Your task to perform on an android device: Empty the shopping cart on walmart. Add lg ultragear to the cart on walmart Image 0: 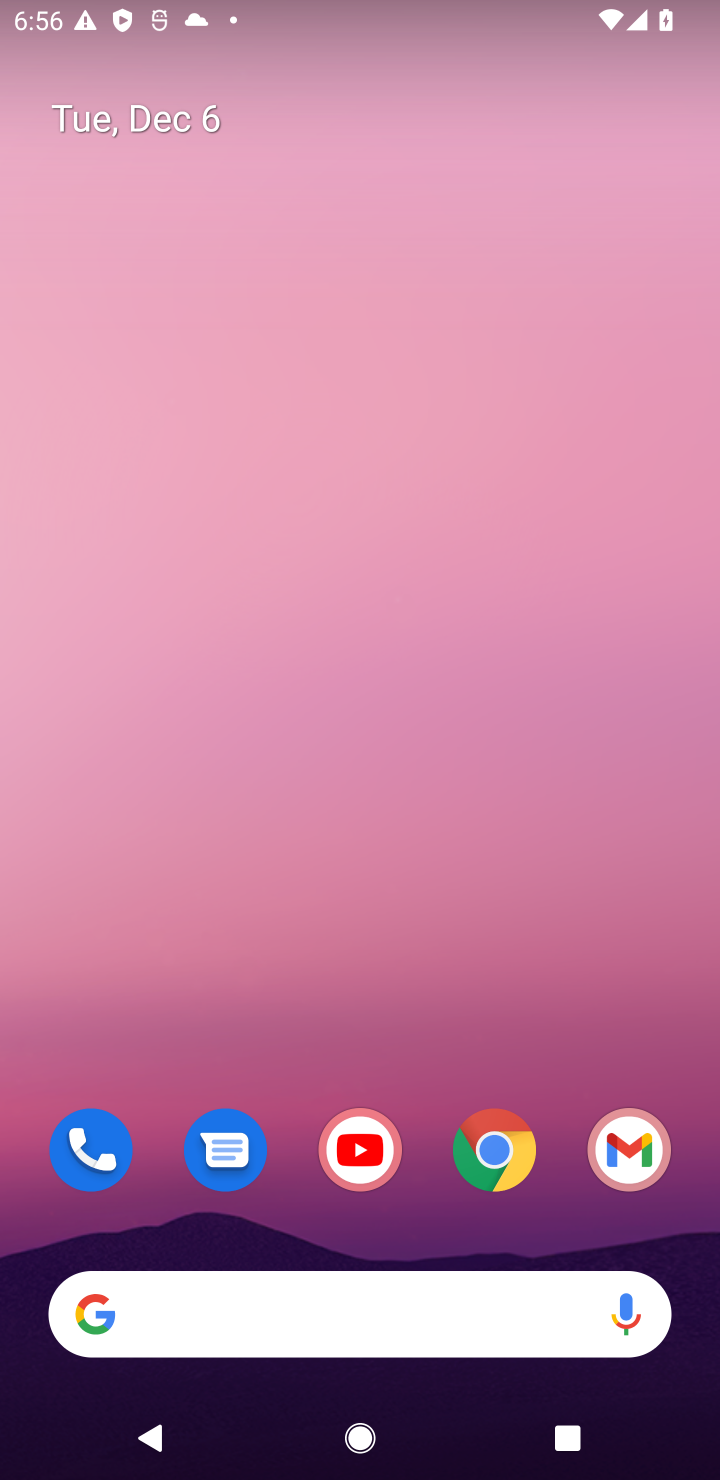
Step 0: click (488, 1155)
Your task to perform on an android device: Empty the shopping cart on walmart. Add lg ultragear to the cart on walmart Image 1: 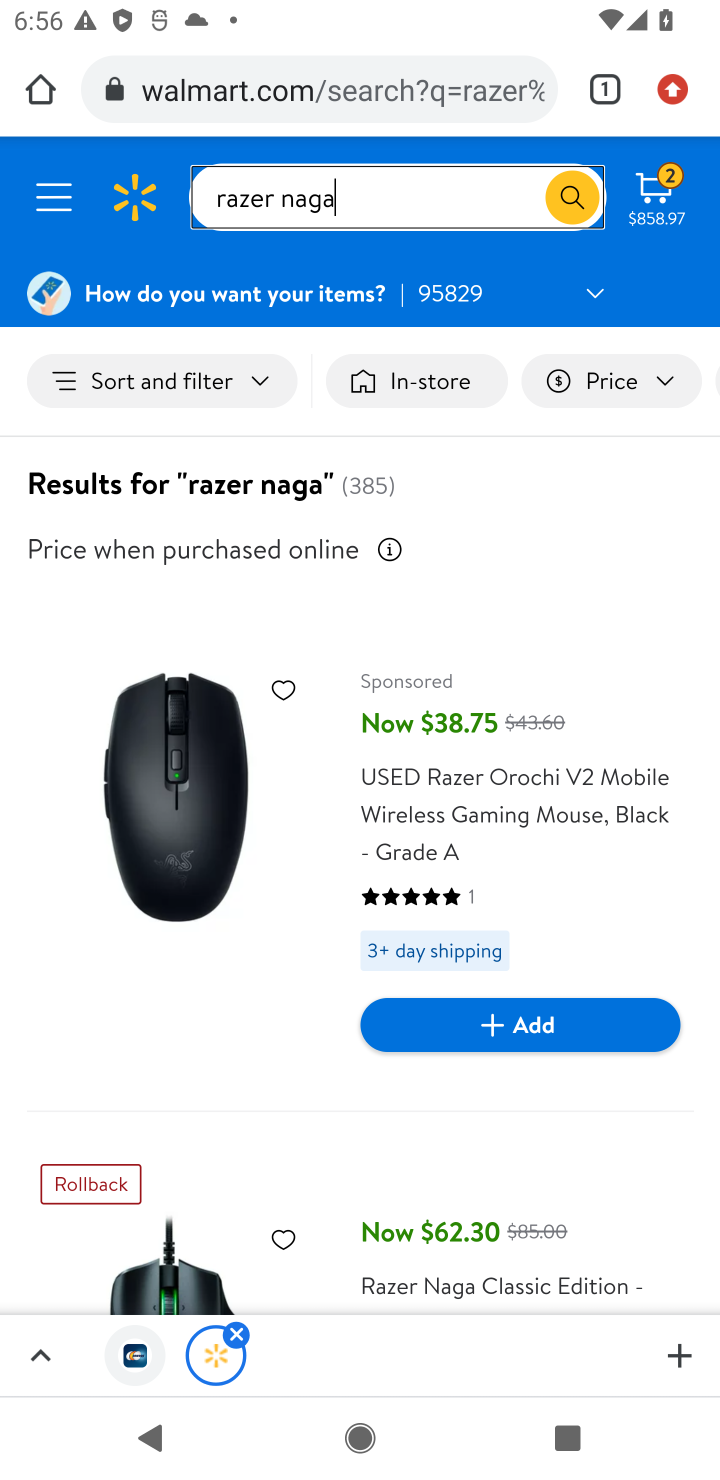
Step 1: click (654, 200)
Your task to perform on an android device: Empty the shopping cart on walmart. Add lg ultragear to the cart on walmart Image 2: 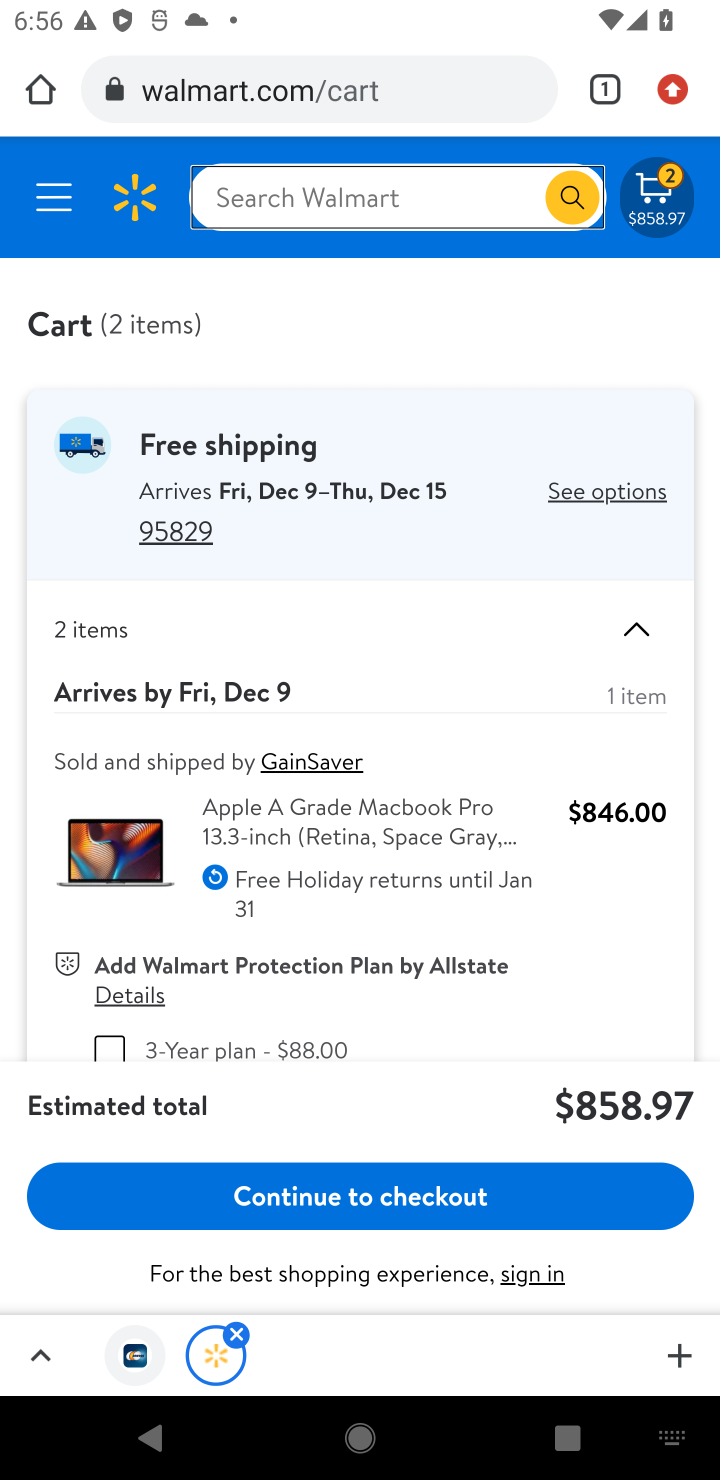
Step 2: drag from (340, 949) to (351, 557)
Your task to perform on an android device: Empty the shopping cart on walmart. Add lg ultragear to the cart on walmart Image 3: 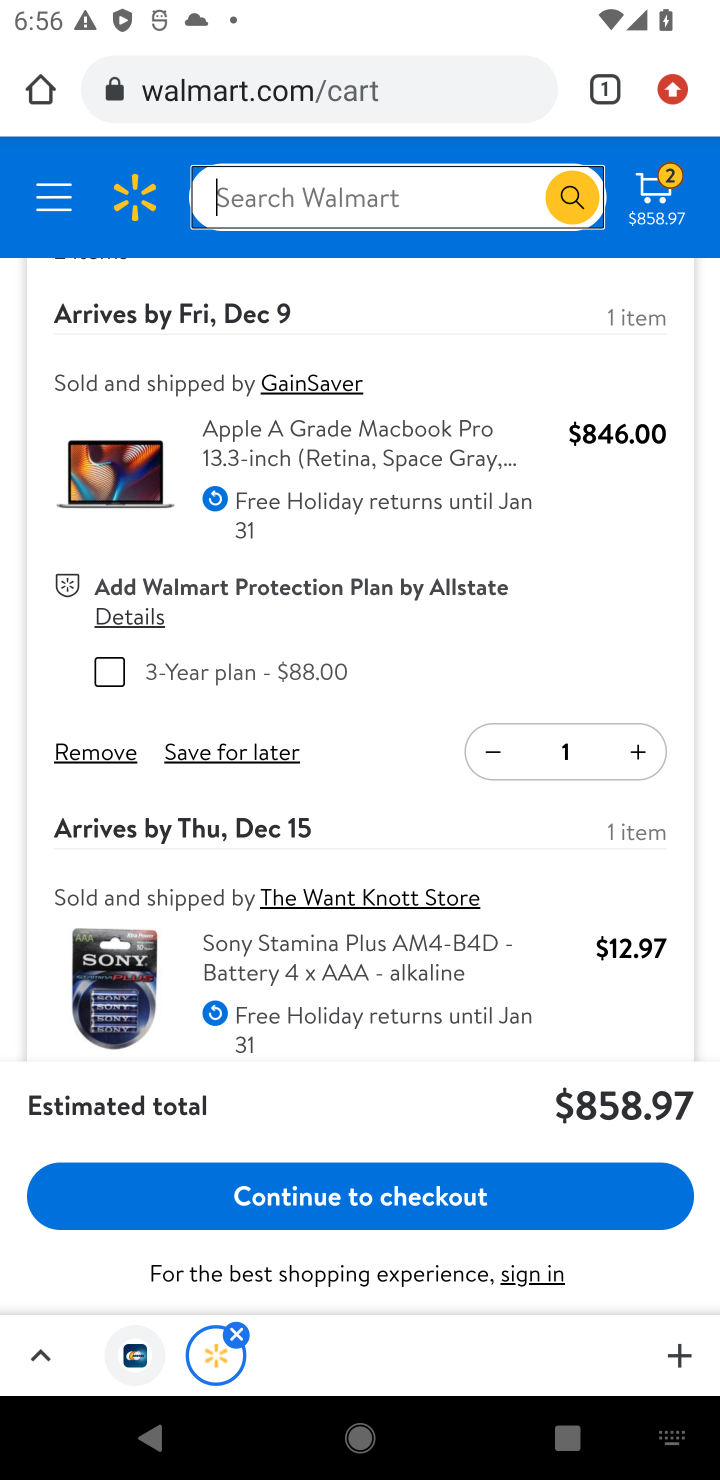
Step 3: click (91, 766)
Your task to perform on an android device: Empty the shopping cart on walmart. Add lg ultragear to the cart on walmart Image 4: 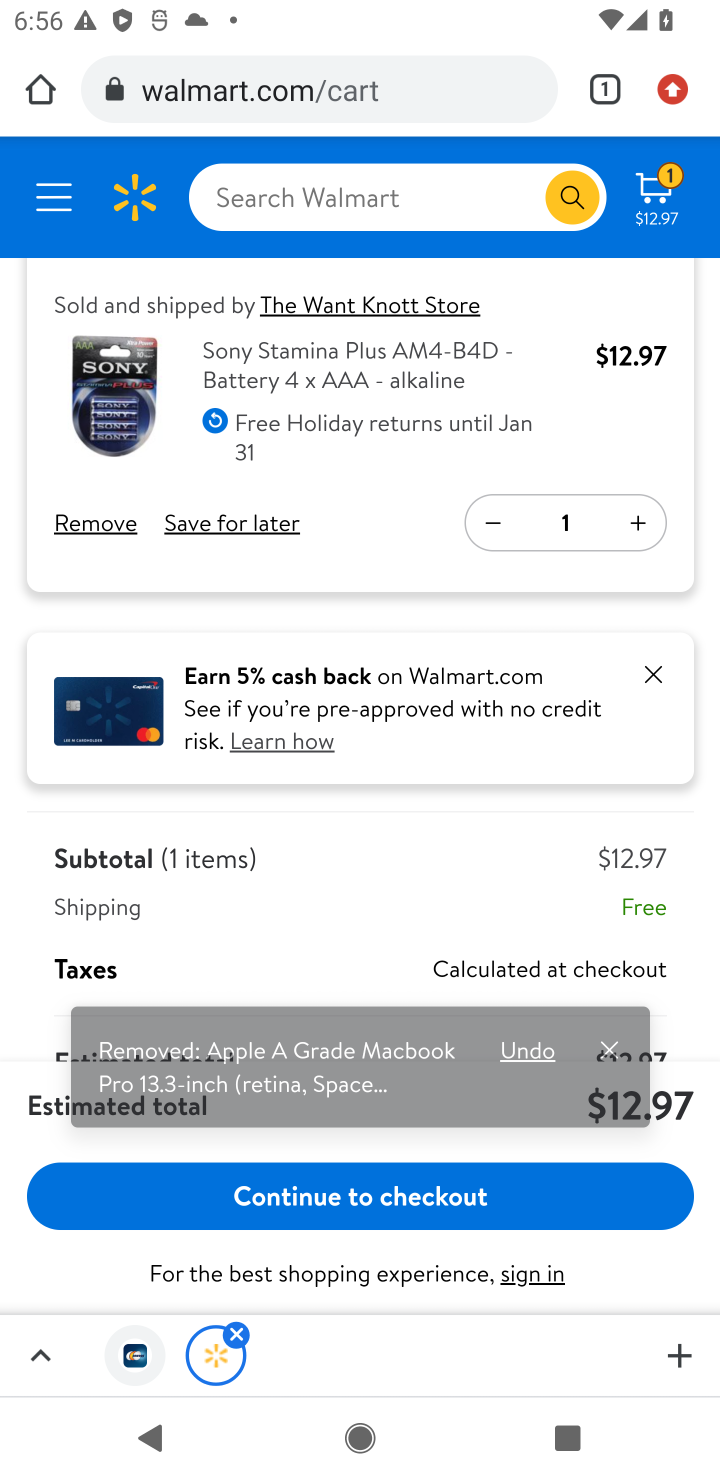
Step 4: click (95, 526)
Your task to perform on an android device: Empty the shopping cart on walmart. Add lg ultragear to the cart on walmart Image 5: 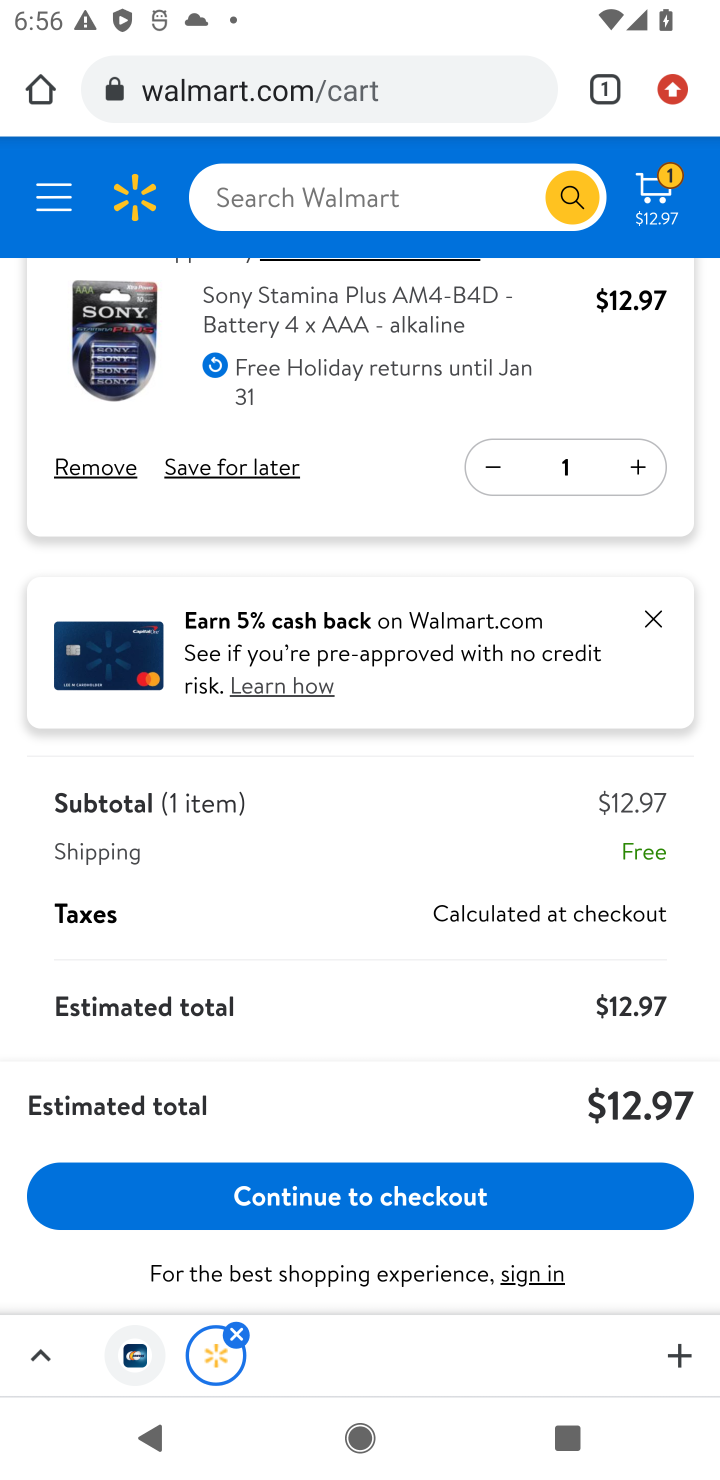
Step 5: click (86, 469)
Your task to perform on an android device: Empty the shopping cart on walmart. Add lg ultragear to the cart on walmart Image 6: 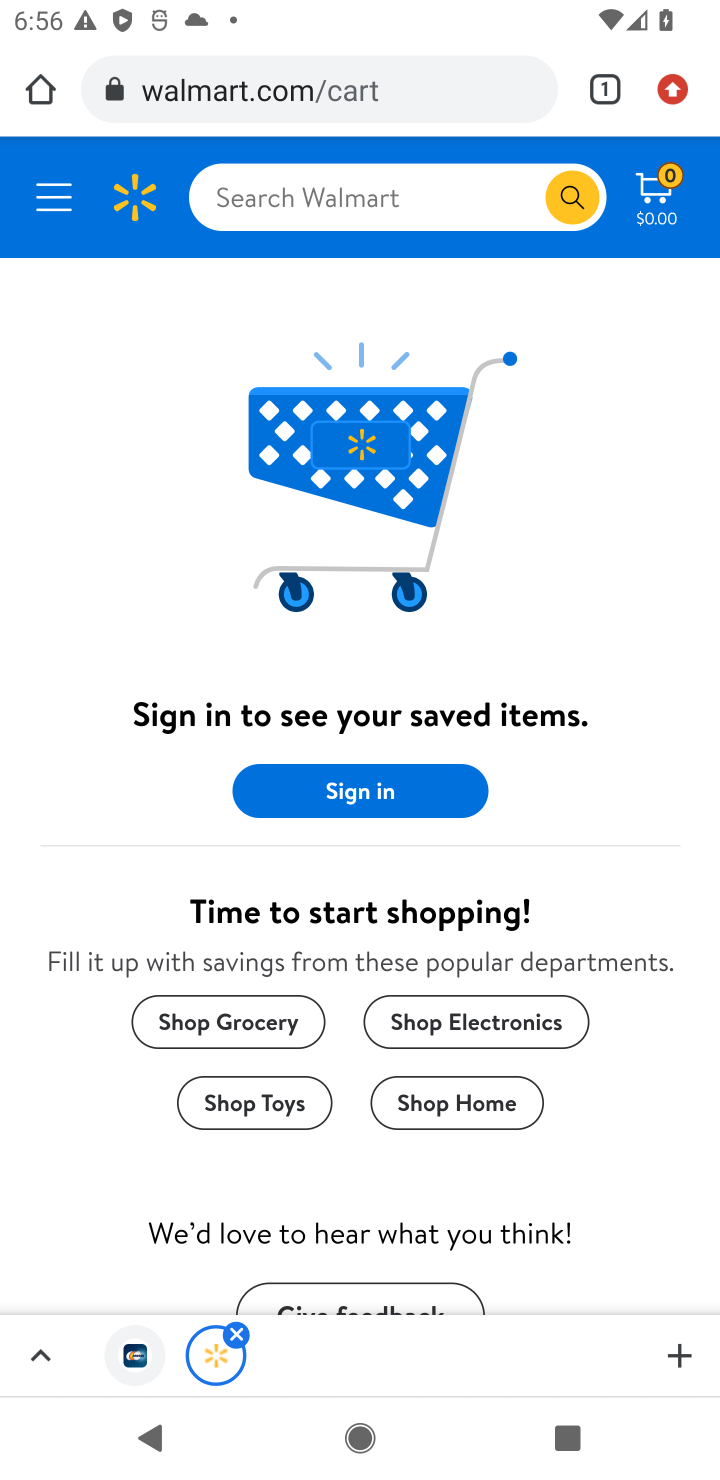
Step 6: click (337, 190)
Your task to perform on an android device: Empty the shopping cart on walmart. Add lg ultragear to the cart on walmart Image 7: 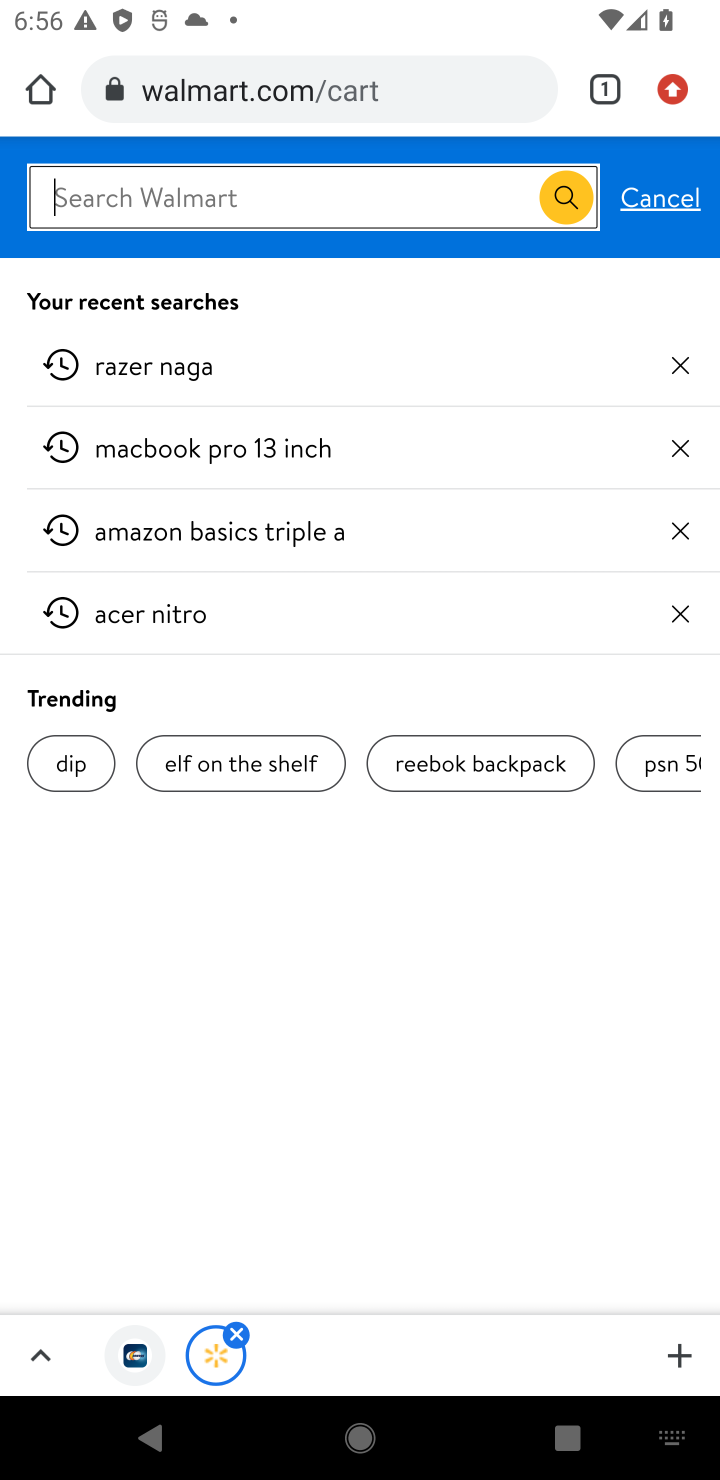
Step 7: type "lg ultragear"
Your task to perform on an android device: Empty the shopping cart on walmart. Add lg ultragear to the cart on walmart Image 8: 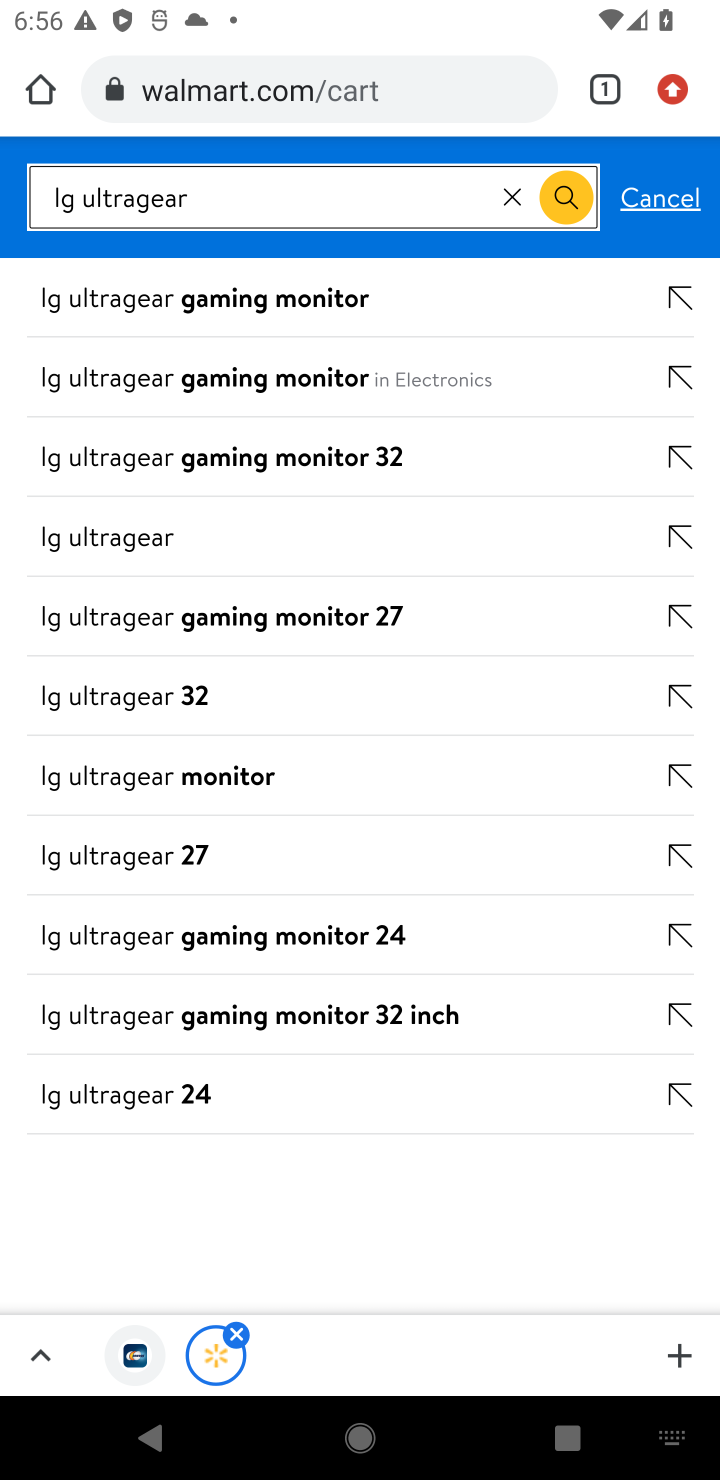
Step 8: click (124, 538)
Your task to perform on an android device: Empty the shopping cart on walmart. Add lg ultragear to the cart on walmart Image 9: 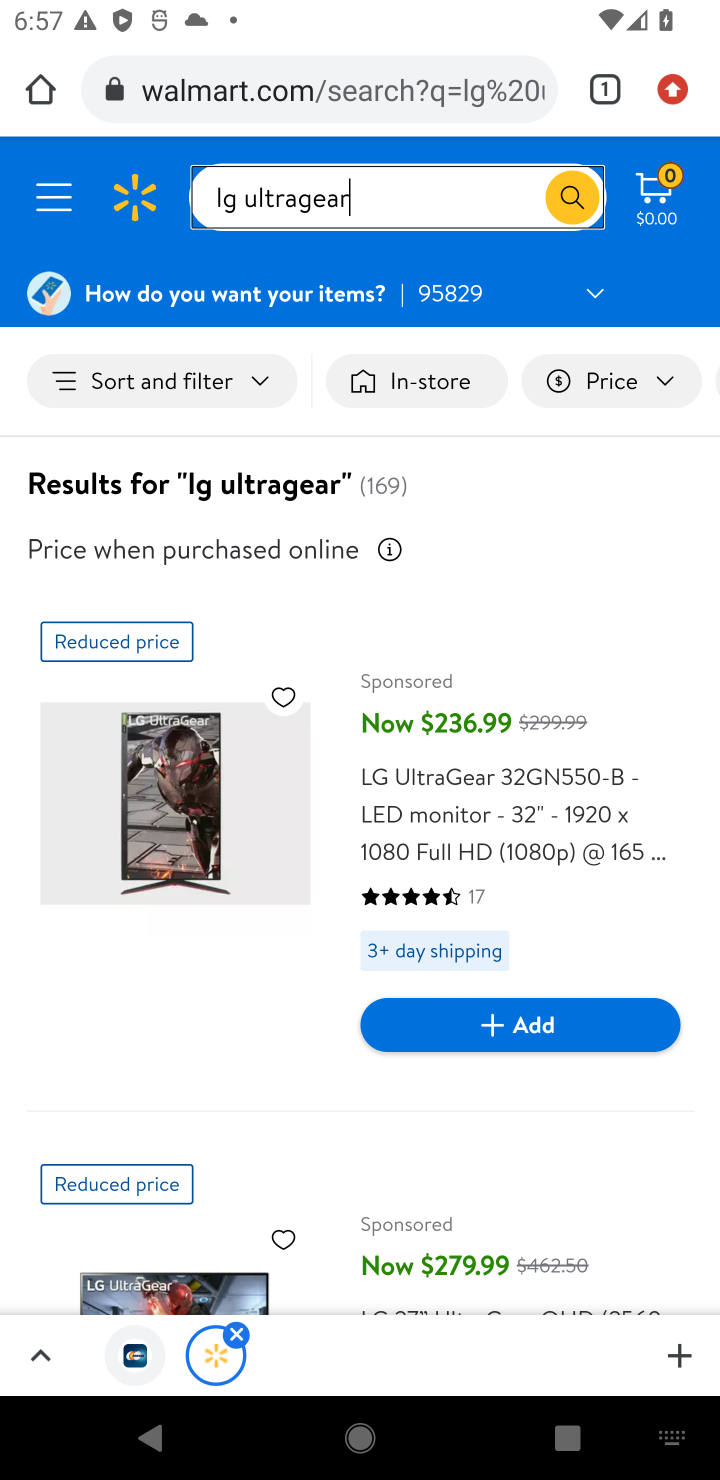
Step 9: click (468, 1018)
Your task to perform on an android device: Empty the shopping cart on walmart. Add lg ultragear to the cart on walmart Image 10: 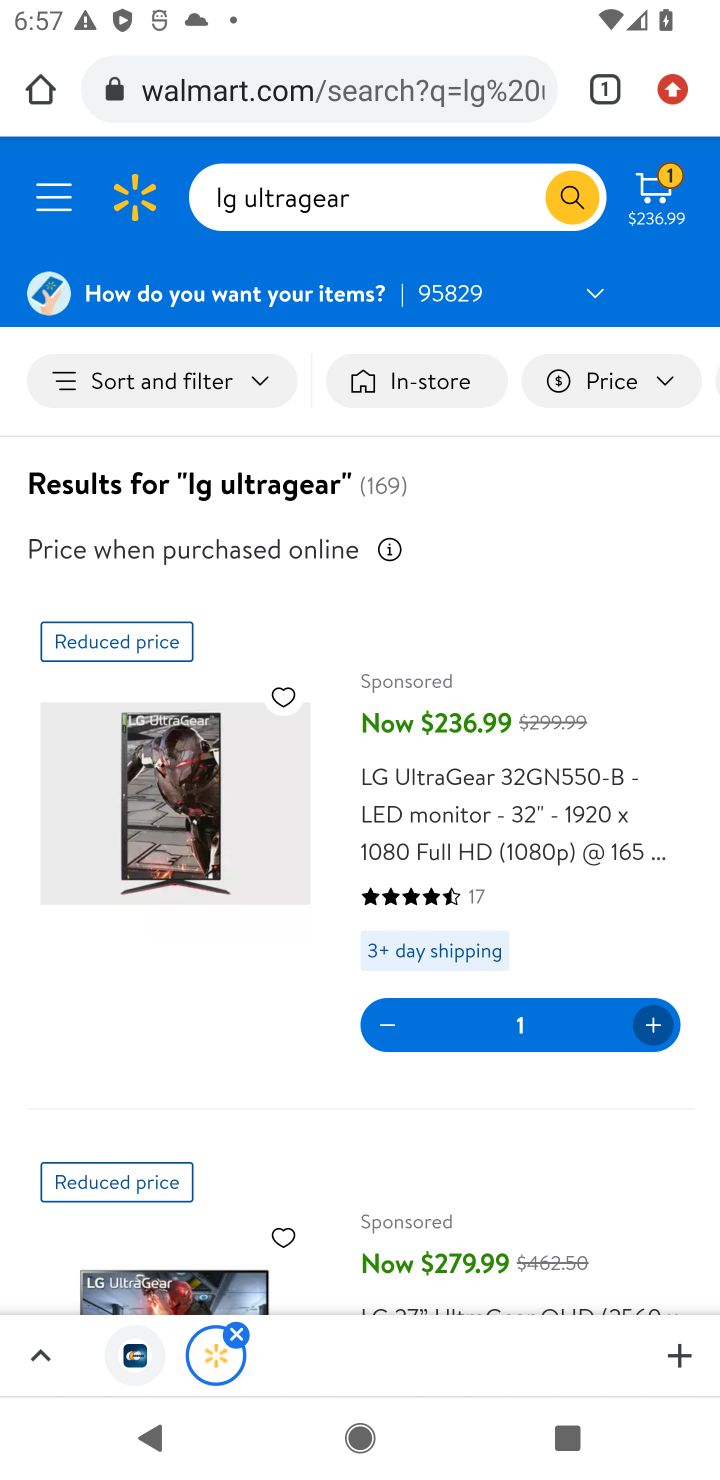
Step 10: task complete